Your task to perform on an android device: Do I have any events this weekend? Image 0: 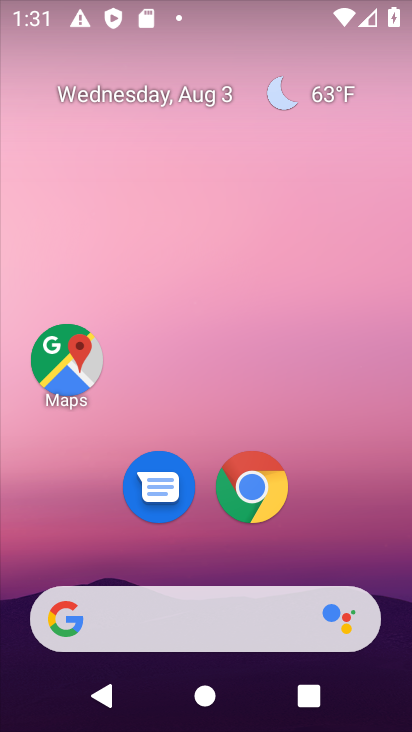
Step 0: drag from (328, 516) to (350, 15)
Your task to perform on an android device: Do I have any events this weekend? Image 1: 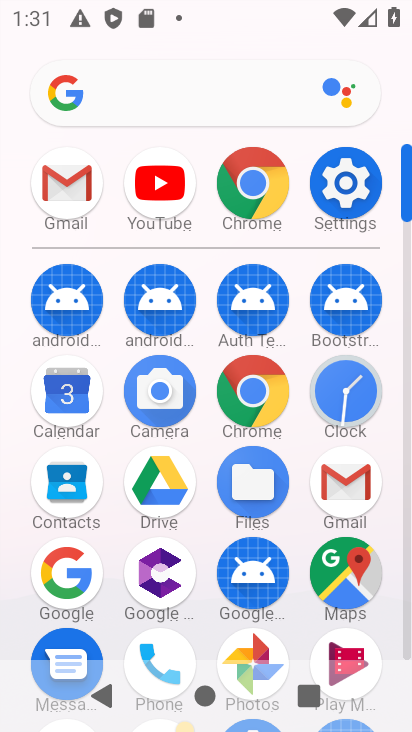
Step 1: drag from (193, 472) to (224, 76)
Your task to perform on an android device: Do I have any events this weekend? Image 2: 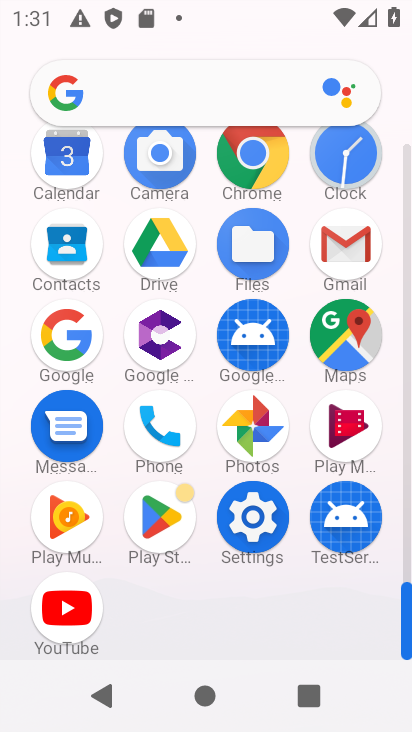
Step 2: click (65, 242)
Your task to perform on an android device: Do I have any events this weekend? Image 3: 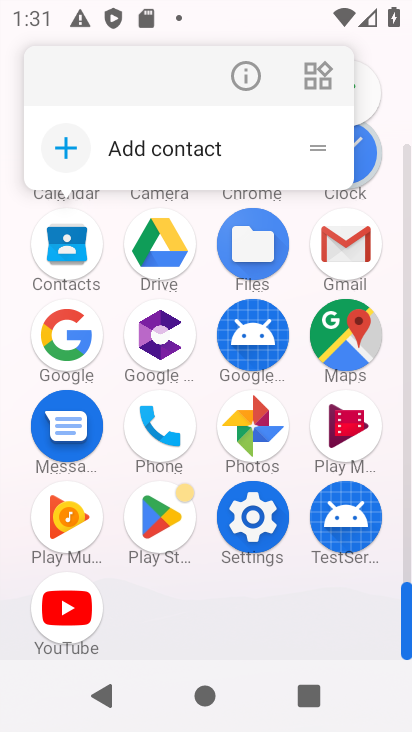
Step 3: click (67, 242)
Your task to perform on an android device: Do I have any events this weekend? Image 4: 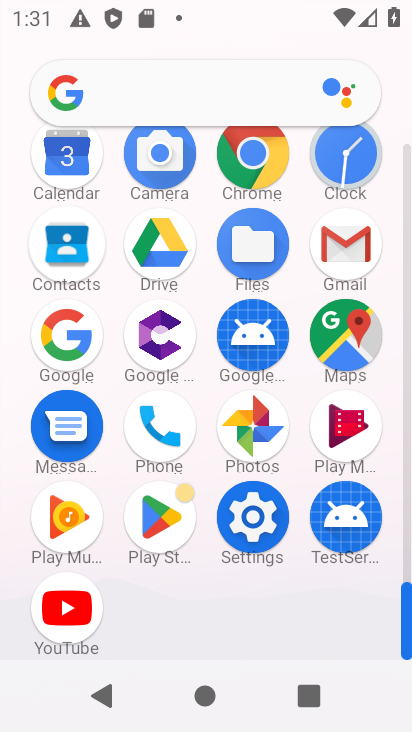
Step 4: drag from (67, 242) to (410, 452)
Your task to perform on an android device: Do I have any events this weekend? Image 5: 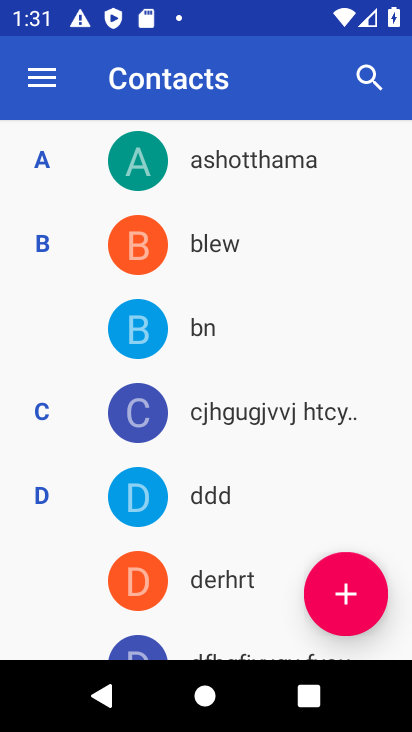
Step 5: press back button
Your task to perform on an android device: Do I have any events this weekend? Image 6: 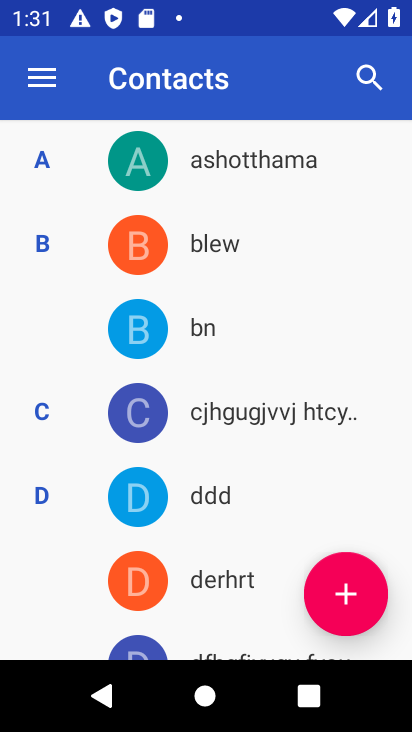
Step 6: drag from (410, 452) to (401, 260)
Your task to perform on an android device: Do I have any events this weekend? Image 7: 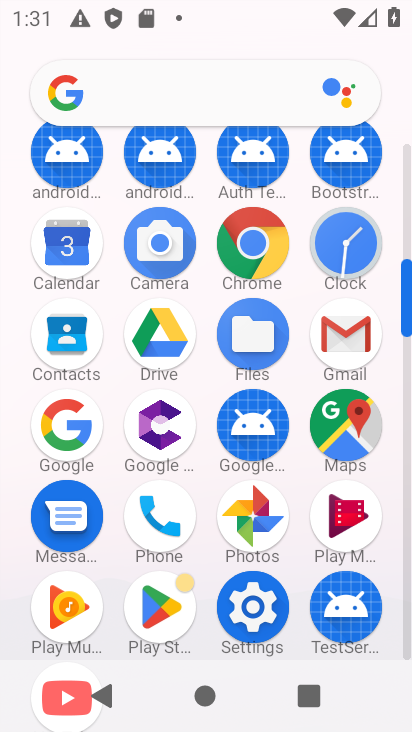
Step 7: click (72, 151)
Your task to perform on an android device: Do I have any events this weekend? Image 8: 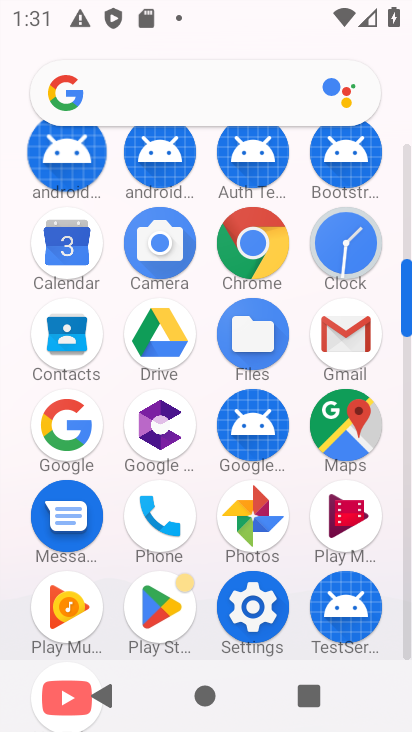
Step 8: drag from (72, 151) to (367, 392)
Your task to perform on an android device: Do I have any events this weekend? Image 9: 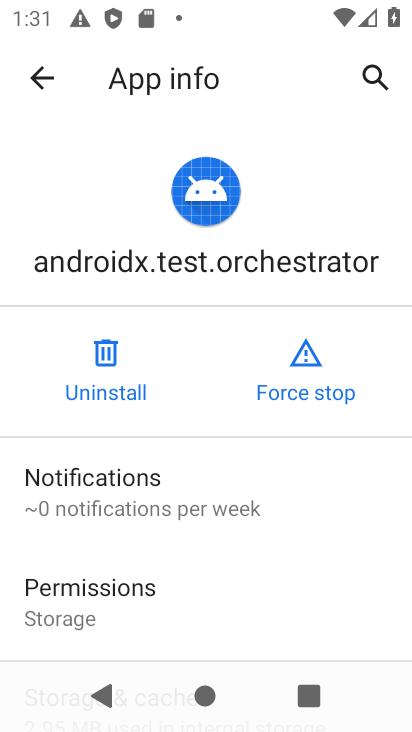
Step 9: press back button
Your task to perform on an android device: Do I have any events this weekend? Image 10: 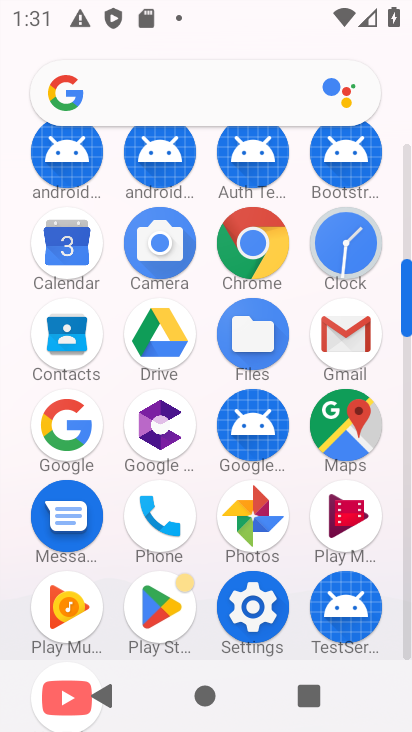
Step 10: click (63, 241)
Your task to perform on an android device: Do I have any events this weekend? Image 11: 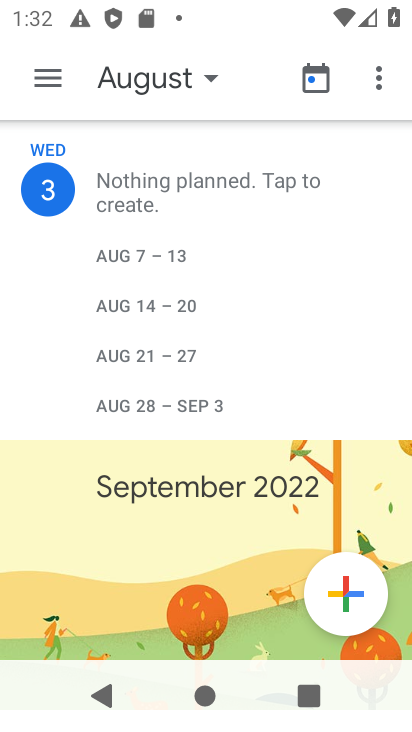
Step 11: click (207, 74)
Your task to perform on an android device: Do I have any events this weekend? Image 12: 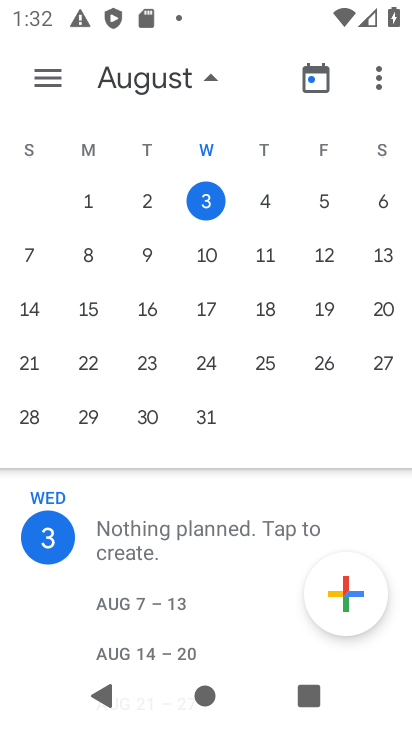
Step 12: click (329, 196)
Your task to perform on an android device: Do I have any events this weekend? Image 13: 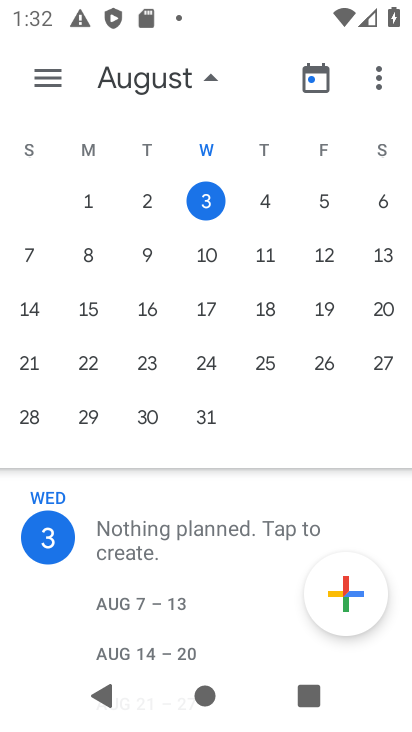
Step 13: click (321, 198)
Your task to perform on an android device: Do I have any events this weekend? Image 14: 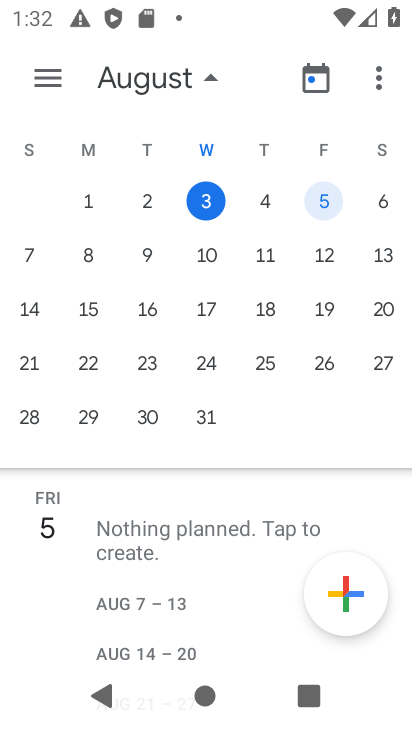
Step 14: task complete